Your task to perform on an android device: turn on showing notifications on the lock screen Image 0: 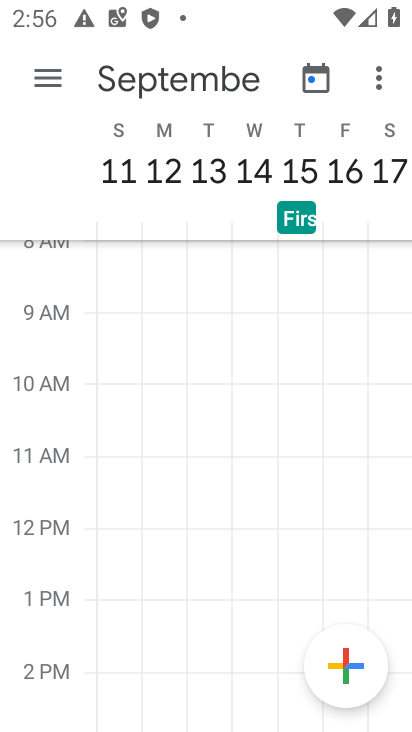
Step 0: press home button
Your task to perform on an android device: turn on showing notifications on the lock screen Image 1: 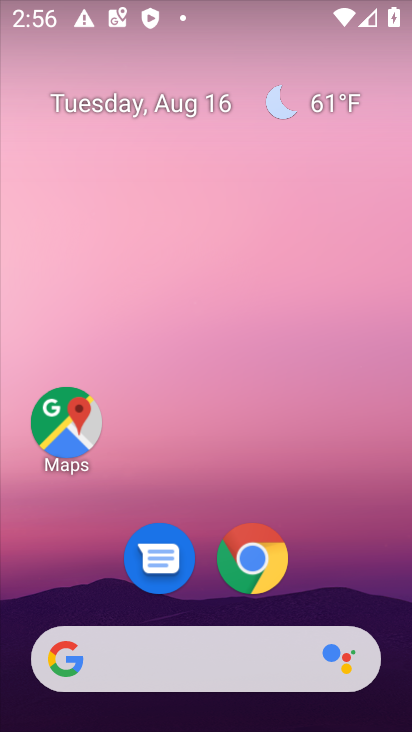
Step 1: drag from (372, 594) to (361, 121)
Your task to perform on an android device: turn on showing notifications on the lock screen Image 2: 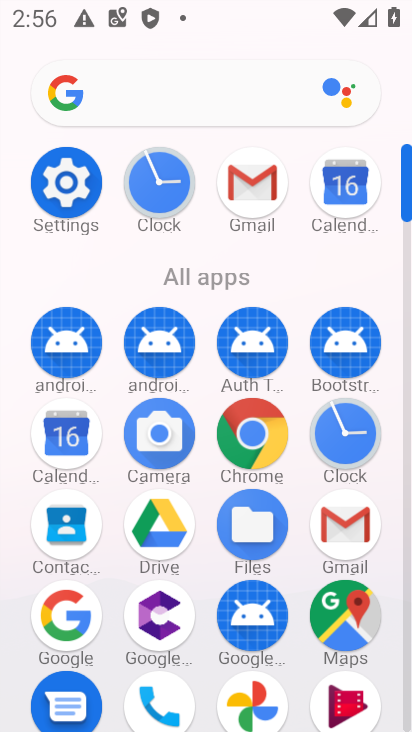
Step 2: click (407, 703)
Your task to perform on an android device: turn on showing notifications on the lock screen Image 3: 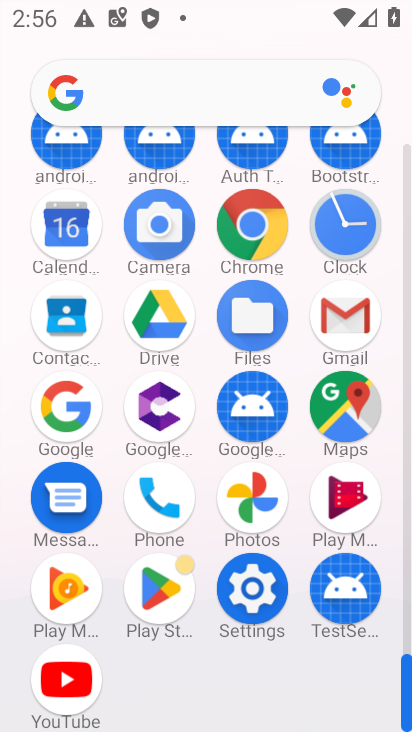
Step 3: click (252, 589)
Your task to perform on an android device: turn on showing notifications on the lock screen Image 4: 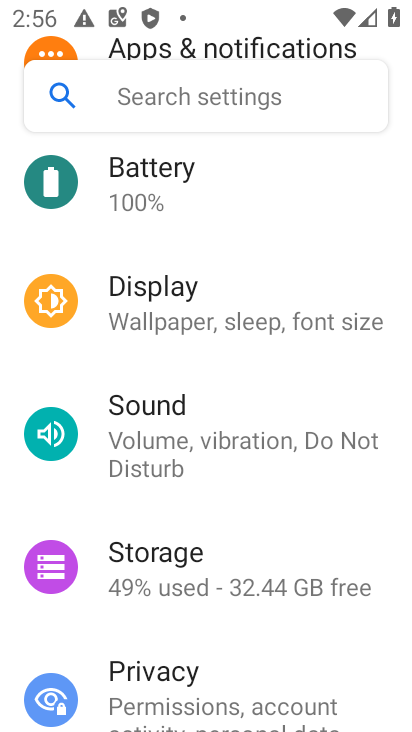
Step 4: drag from (340, 174) to (345, 465)
Your task to perform on an android device: turn on showing notifications on the lock screen Image 5: 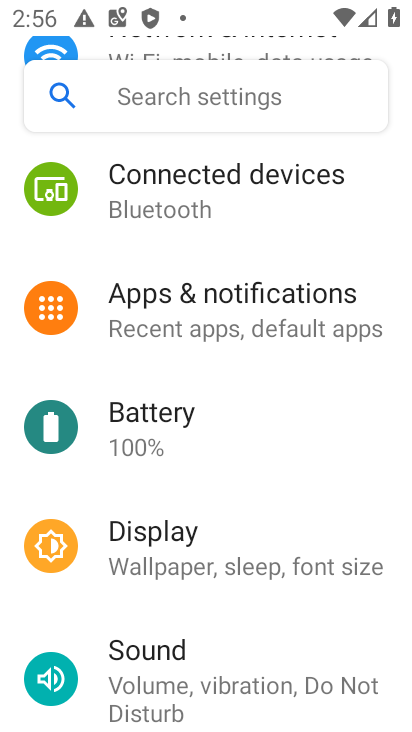
Step 5: click (205, 304)
Your task to perform on an android device: turn on showing notifications on the lock screen Image 6: 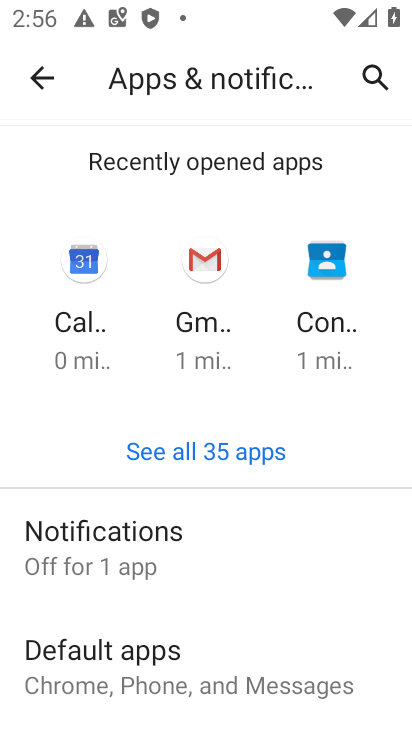
Step 6: drag from (279, 560) to (275, 288)
Your task to perform on an android device: turn on showing notifications on the lock screen Image 7: 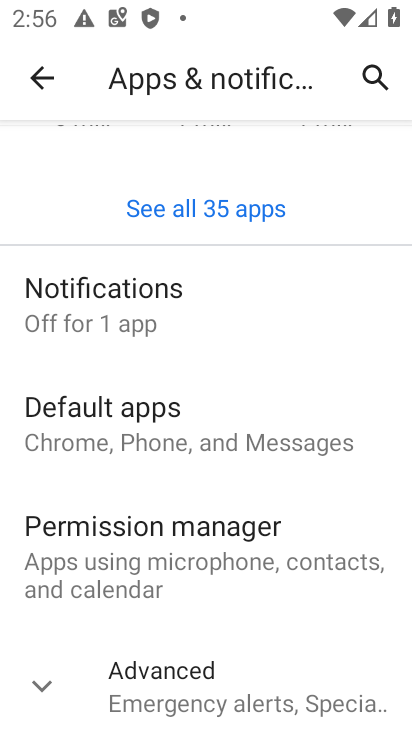
Step 7: click (91, 305)
Your task to perform on an android device: turn on showing notifications on the lock screen Image 8: 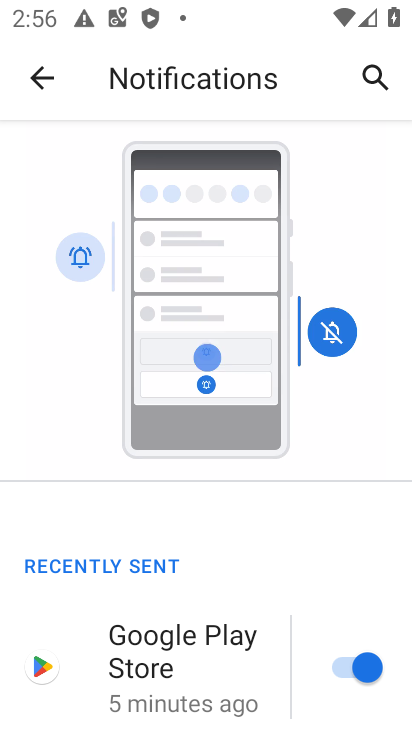
Step 8: drag from (290, 637) to (280, 257)
Your task to perform on an android device: turn on showing notifications on the lock screen Image 9: 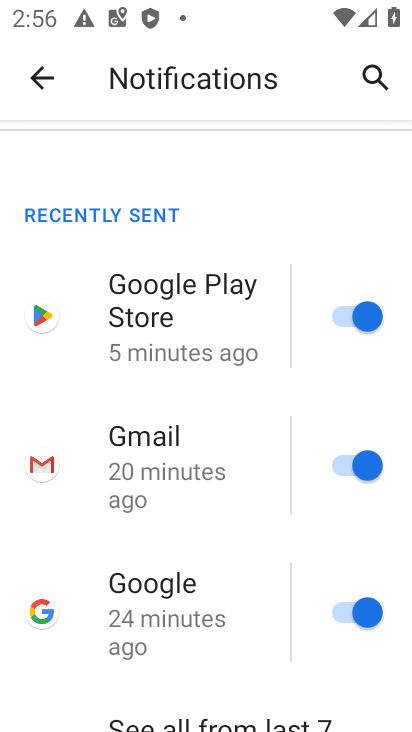
Step 9: drag from (290, 671) to (288, 241)
Your task to perform on an android device: turn on showing notifications on the lock screen Image 10: 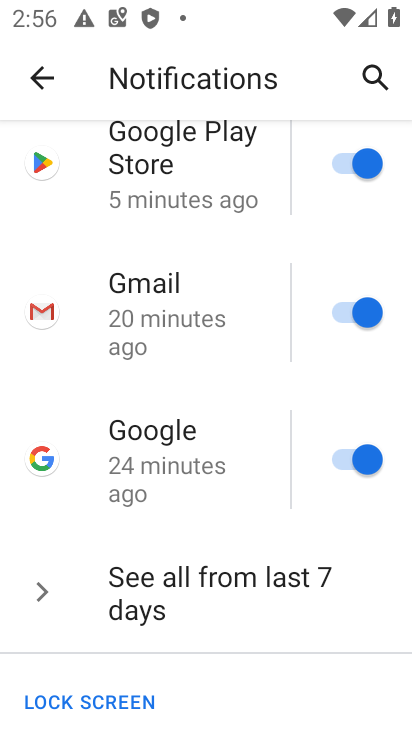
Step 10: drag from (282, 658) to (272, 166)
Your task to perform on an android device: turn on showing notifications on the lock screen Image 11: 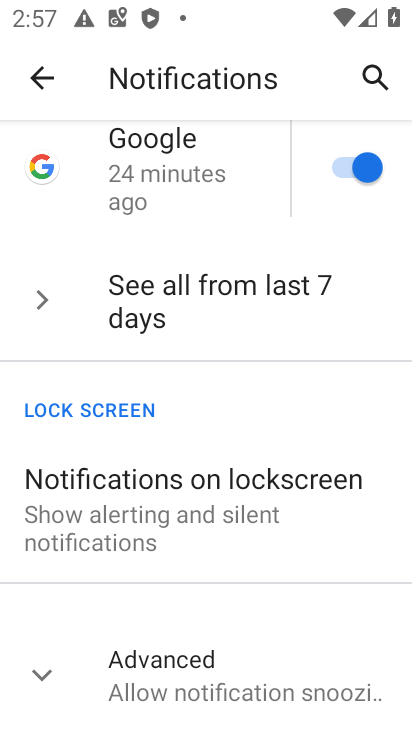
Step 11: click (129, 503)
Your task to perform on an android device: turn on showing notifications on the lock screen Image 12: 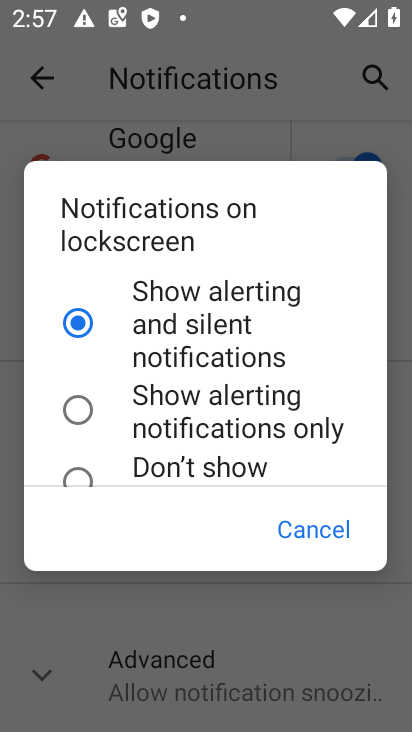
Step 12: task complete